Your task to perform on an android device: Open settings on Google Maps Image 0: 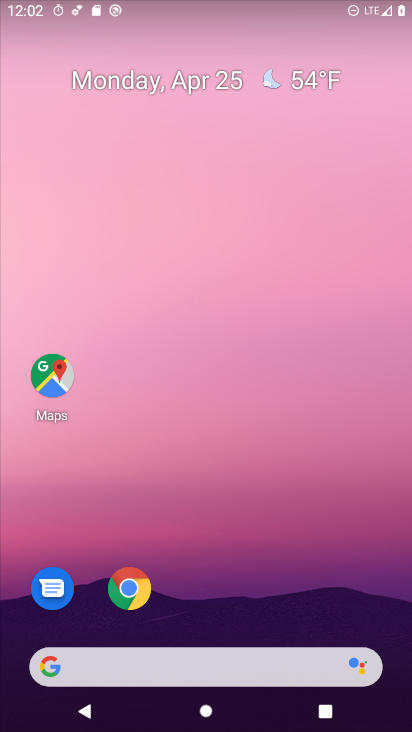
Step 0: drag from (207, 584) to (209, 27)
Your task to perform on an android device: Open settings on Google Maps Image 1: 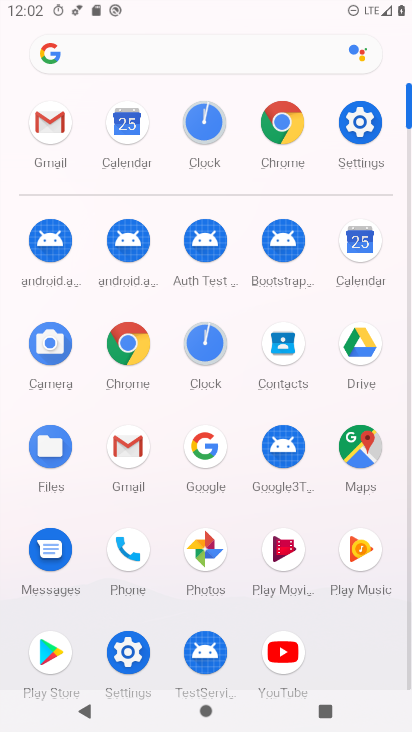
Step 1: click (370, 441)
Your task to perform on an android device: Open settings on Google Maps Image 2: 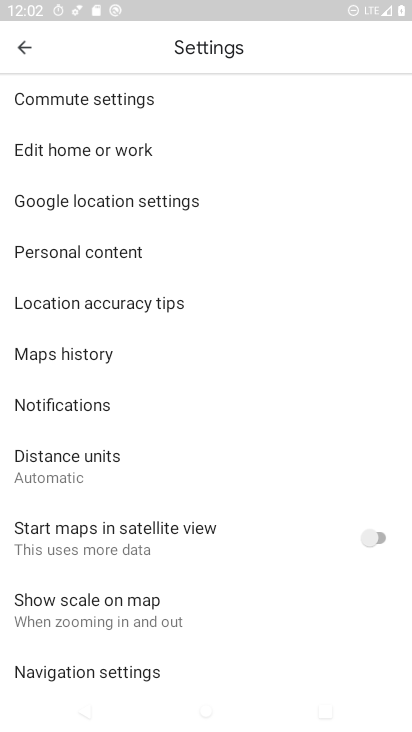
Step 2: click (25, 49)
Your task to perform on an android device: Open settings on Google Maps Image 3: 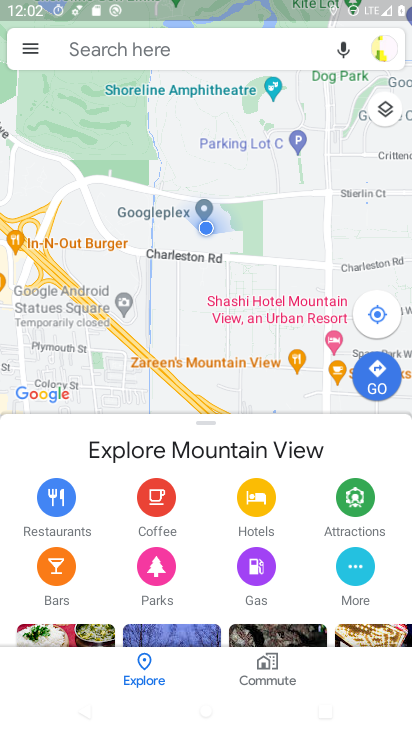
Step 3: click (14, 57)
Your task to perform on an android device: Open settings on Google Maps Image 4: 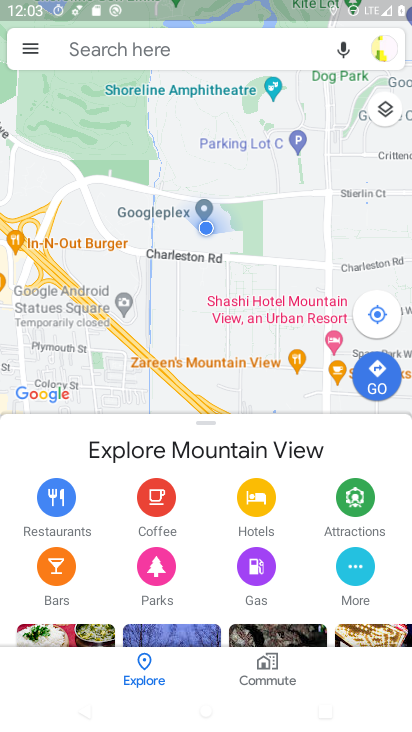
Step 4: click (31, 43)
Your task to perform on an android device: Open settings on Google Maps Image 5: 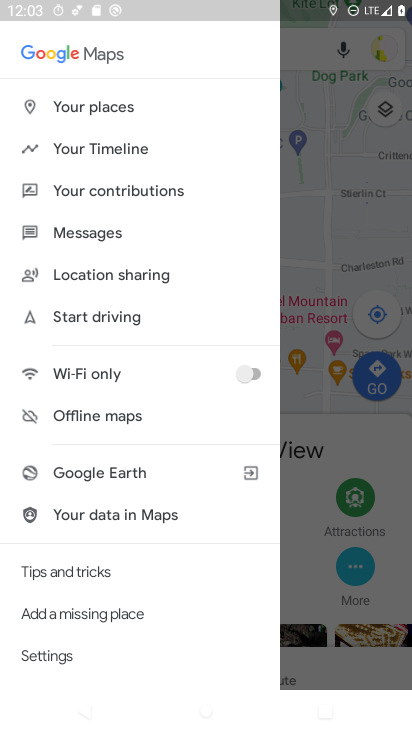
Step 5: click (45, 659)
Your task to perform on an android device: Open settings on Google Maps Image 6: 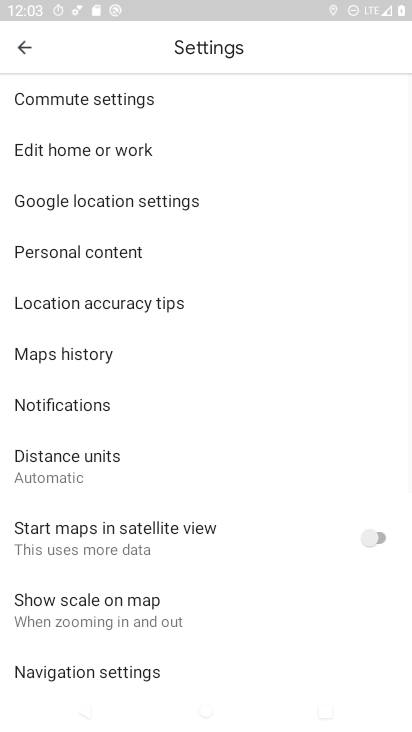
Step 6: task complete